Your task to perform on an android device: search for starred emails in the gmail app Image 0: 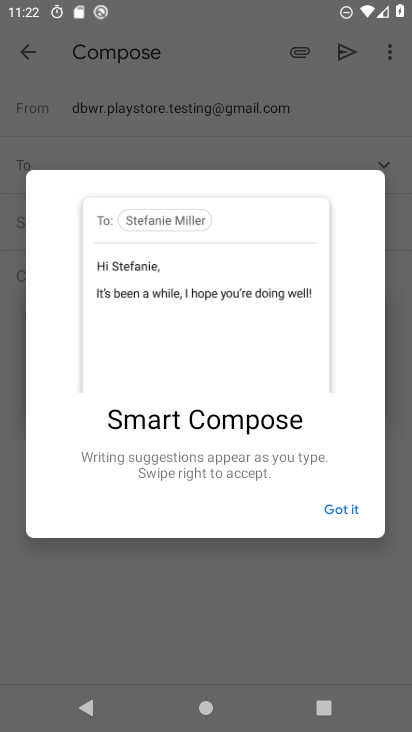
Step 0: press home button
Your task to perform on an android device: search for starred emails in the gmail app Image 1: 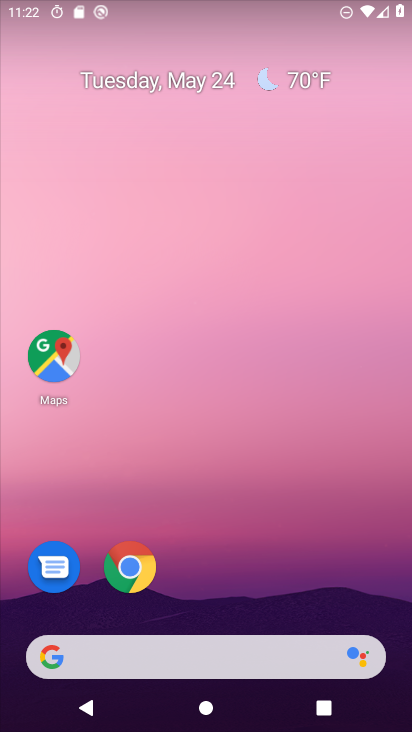
Step 1: drag from (397, 651) to (307, 161)
Your task to perform on an android device: search for starred emails in the gmail app Image 2: 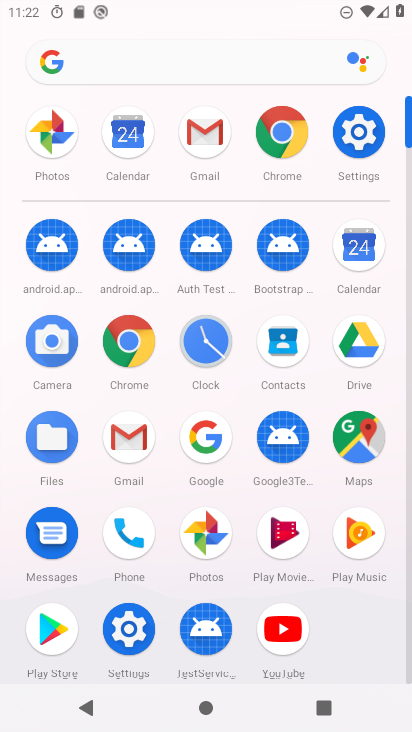
Step 2: click (128, 440)
Your task to perform on an android device: search for starred emails in the gmail app Image 3: 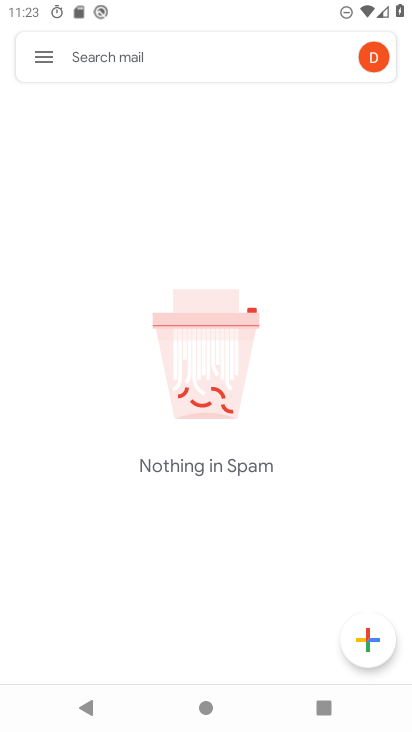
Step 3: click (34, 51)
Your task to perform on an android device: search for starred emails in the gmail app Image 4: 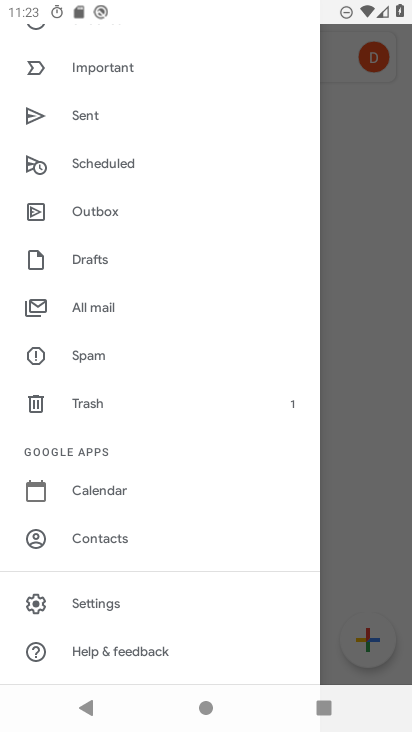
Step 4: drag from (209, 151) to (194, 506)
Your task to perform on an android device: search for starred emails in the gmail app Image 5: 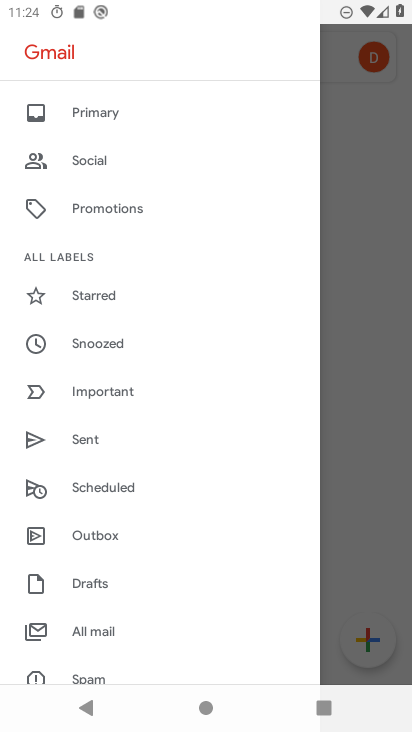
Step 5: drag from (189, 621) to (194, 283)
Your task to perform on an android device: search for starred emails in the gmail app Image 6: 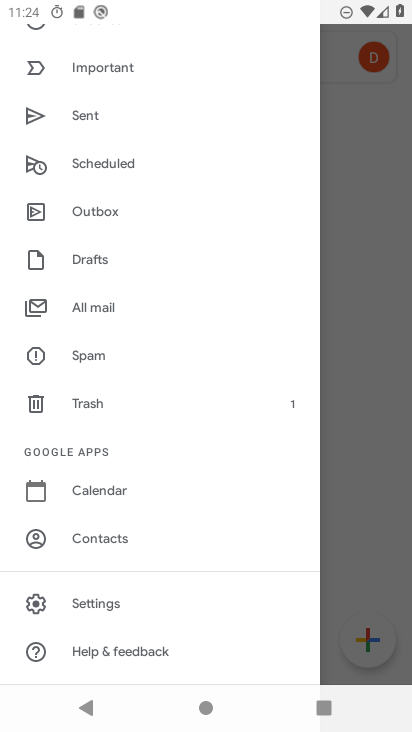
Step 6: drag from (231, 291) to (240, 496)
Your task to perform on an android device: search for starred emails in the gmail app Image 7: 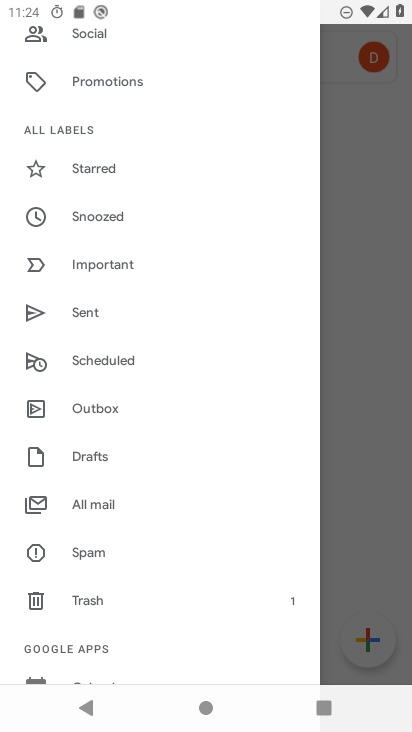
Step 7: click (82, 171)
Your task to perform on an android device: search for starred emails in the gmail app Image 8: 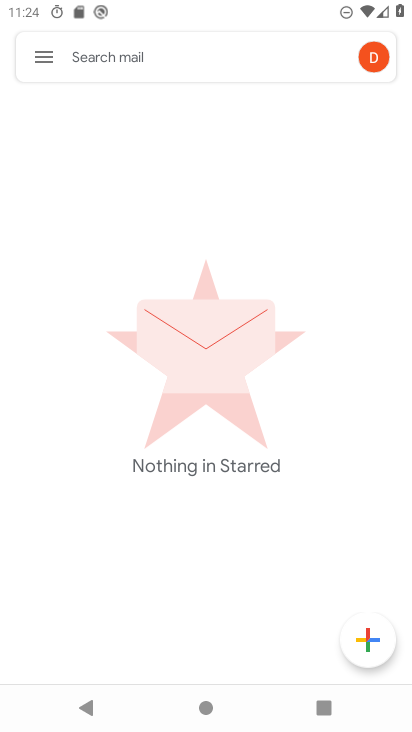
Step 8: task complete